Your task to perform on an android device: turn on javascript in the chrome app Image 0: 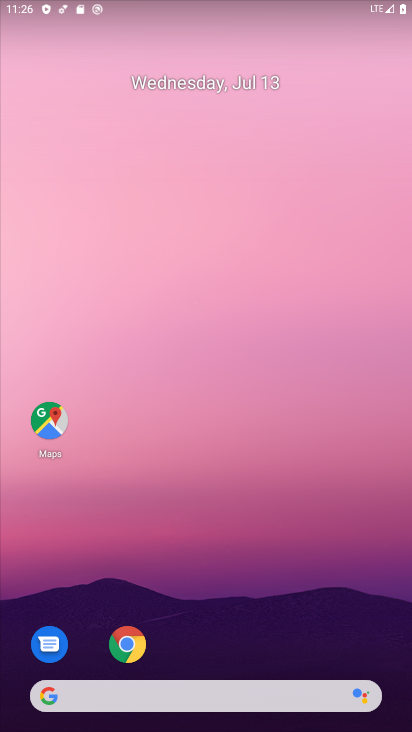
Step 0: drag from (186, 659) to (223, 141)
Your task to perform on an android device: turn on javascript in the chrome app Image 1: 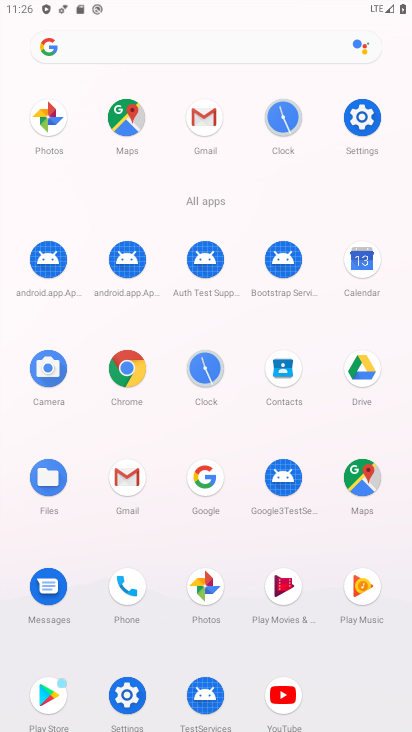
Step 1: click (146, 367)
Your task to perform on an android device: turn on javascript in the chrome app Image 2: 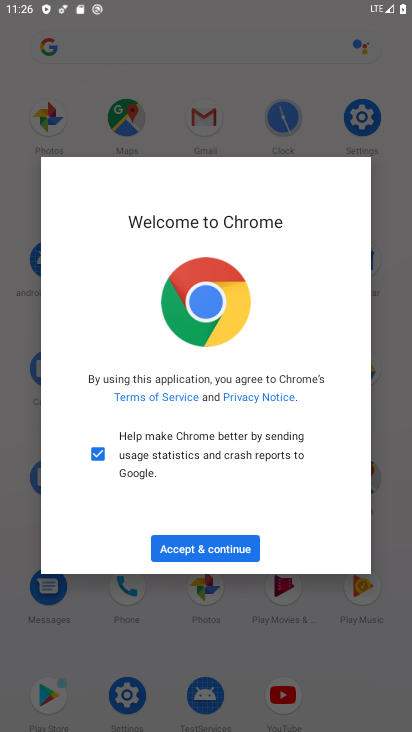
Step 2: click (200, 537)
Your task to perform on an android device: turn on javascript in the chrome app Image 3: 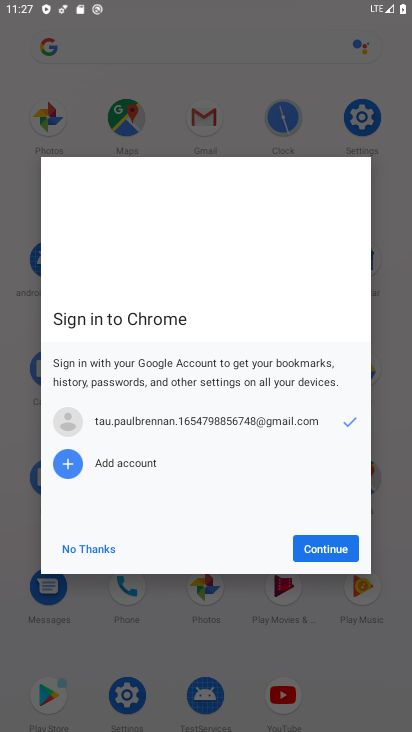
Step 3: click (332, 549)
Your task to perform on an android device: turn on javascript in the chrome app Image 4: 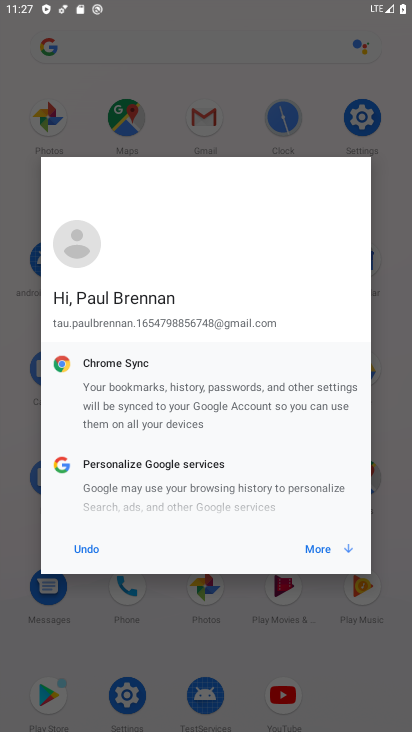
Step 4: click (331, 545)
Your task to perform on an android device: turn on javascript in the chrome app Image 5: 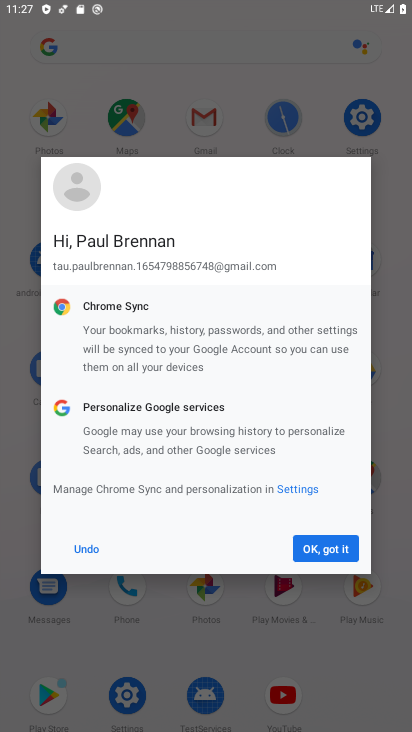
Step 5: click (325, 555)
Your task to perform on an android device: turn on javascript in the chrome app Image 6: 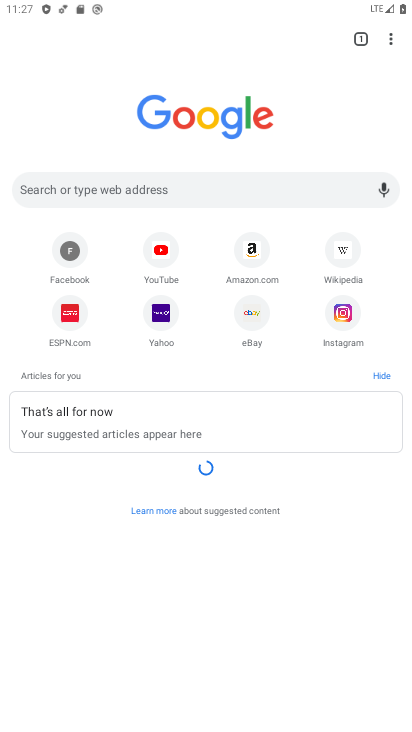
Step 6: click (322, 544)
Your task to perform on an android device: turn on javascript in the chrome app Image 7: 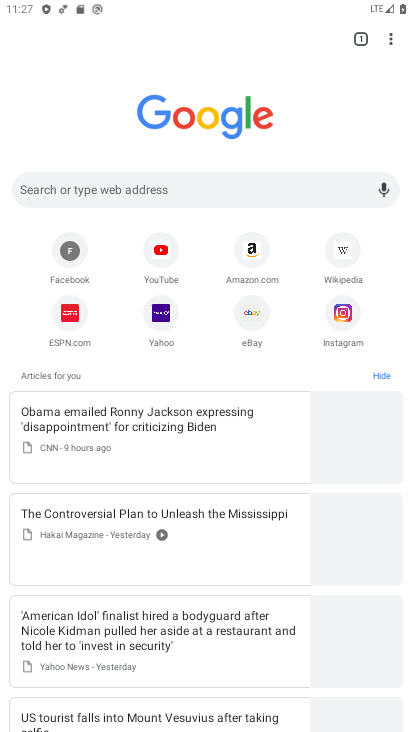
Step 7: drag from (394, 43) to (306, 365)
Your task to perform on an android device: turn on javascript in the chrome app Image 8: 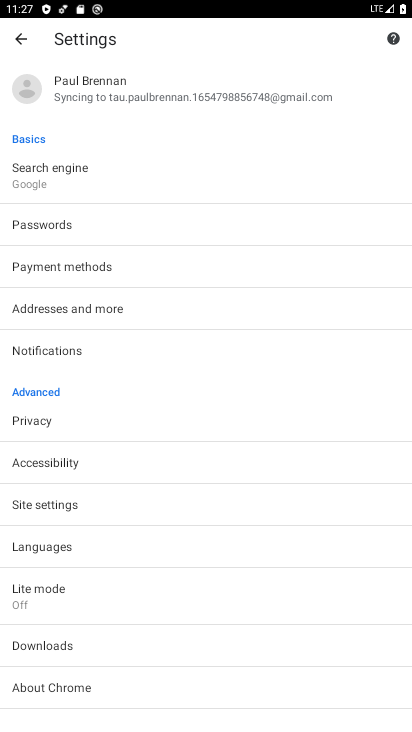
Step 8: click (68, 509)
Your task to perform on an android device: turn on javascript in the chrome app Image 9: 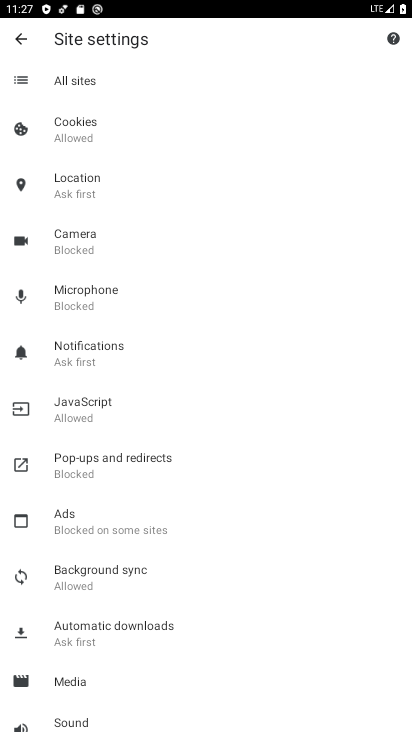
Step 9: click (122, 414)
Your task to perform on an android device: turn on javascript in the chrome app Image 10: 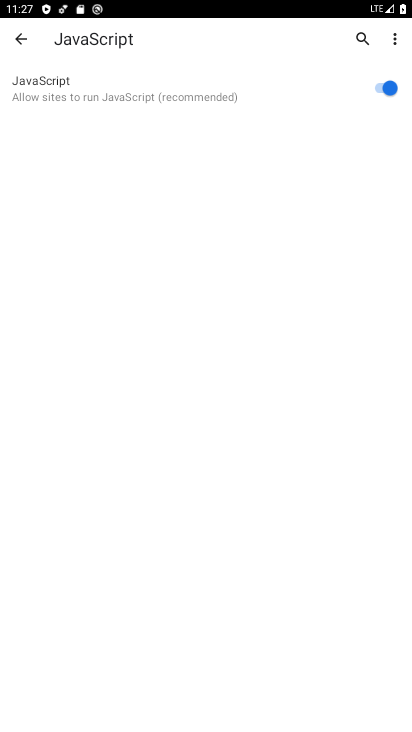
Step 10: task complete